Your task to perform on an android device: Open Yahoo.com Image 0: 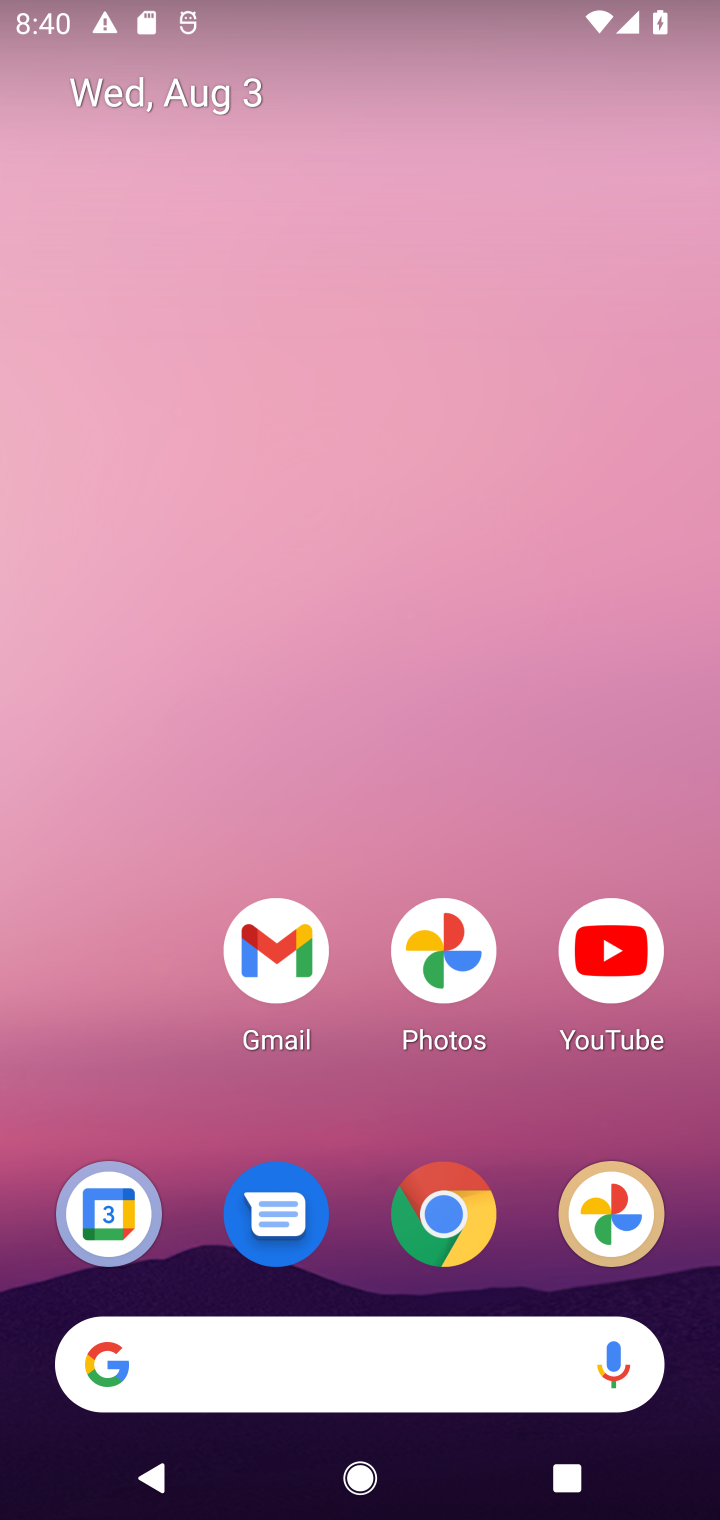
Step 0: click (459, 1198)
Your task to perform on an android device: Open Yahoo.com Image 1: 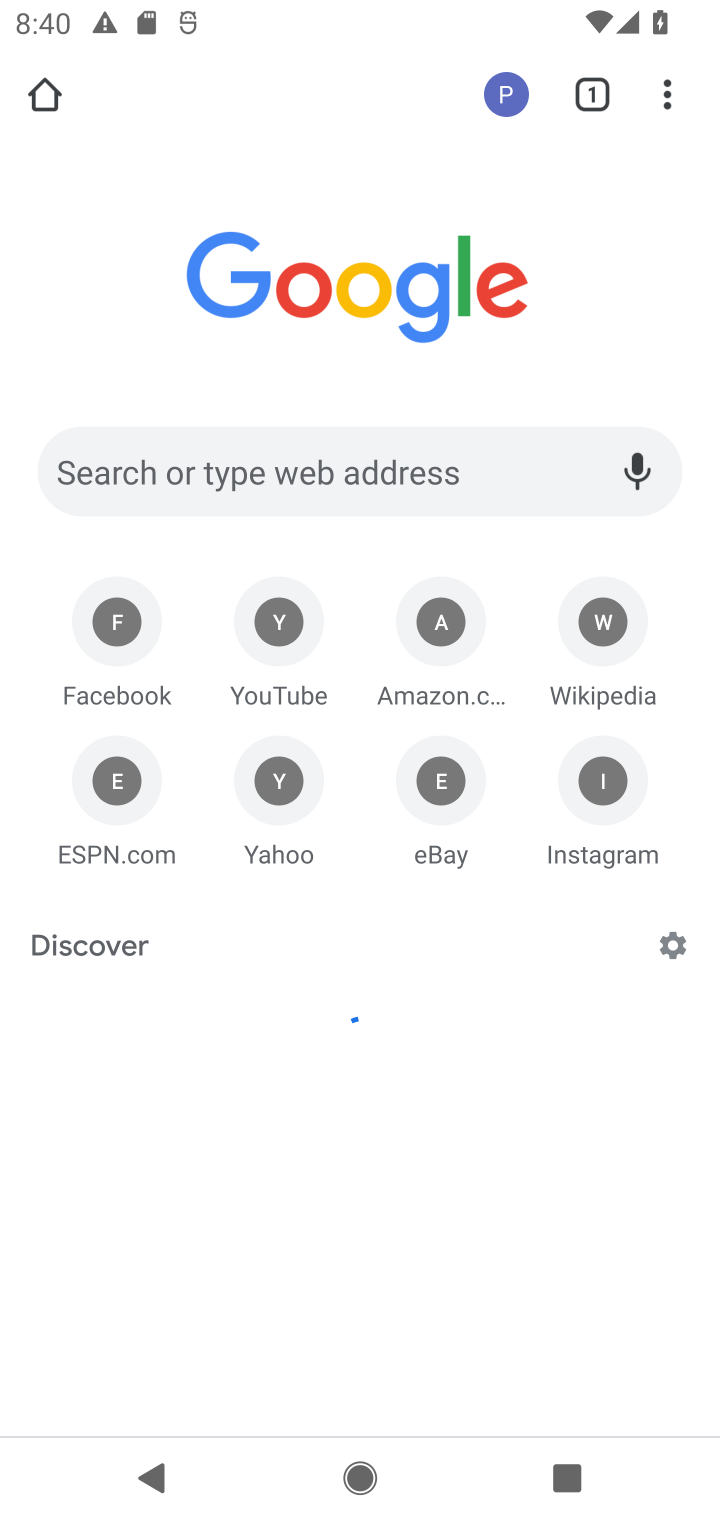
Step 1: click (418, 465)
Your task to perform on an android device: Open Yahoo.com Image 2: 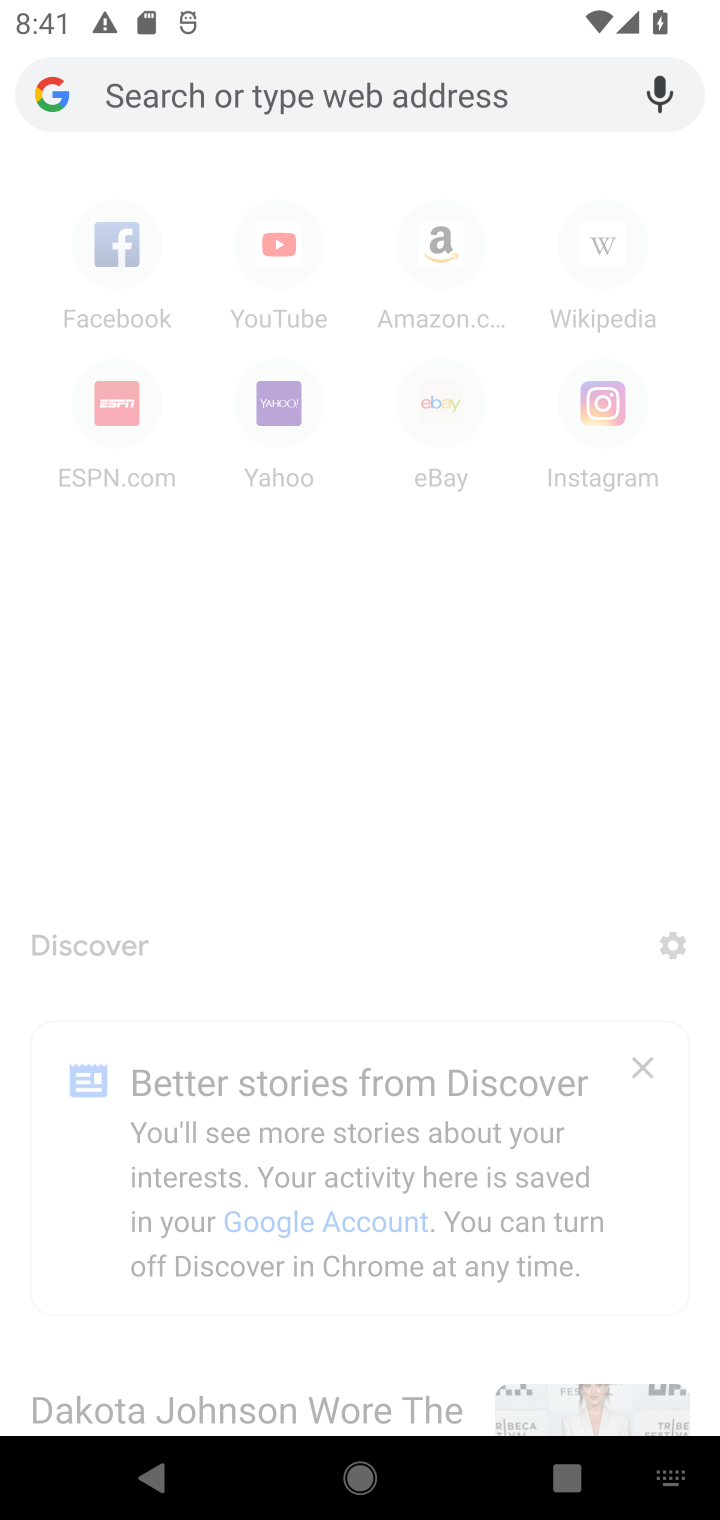
Step 2: type "yahoo.com"
Your task to perform on an android device: Open Yahoo.com Image 3: 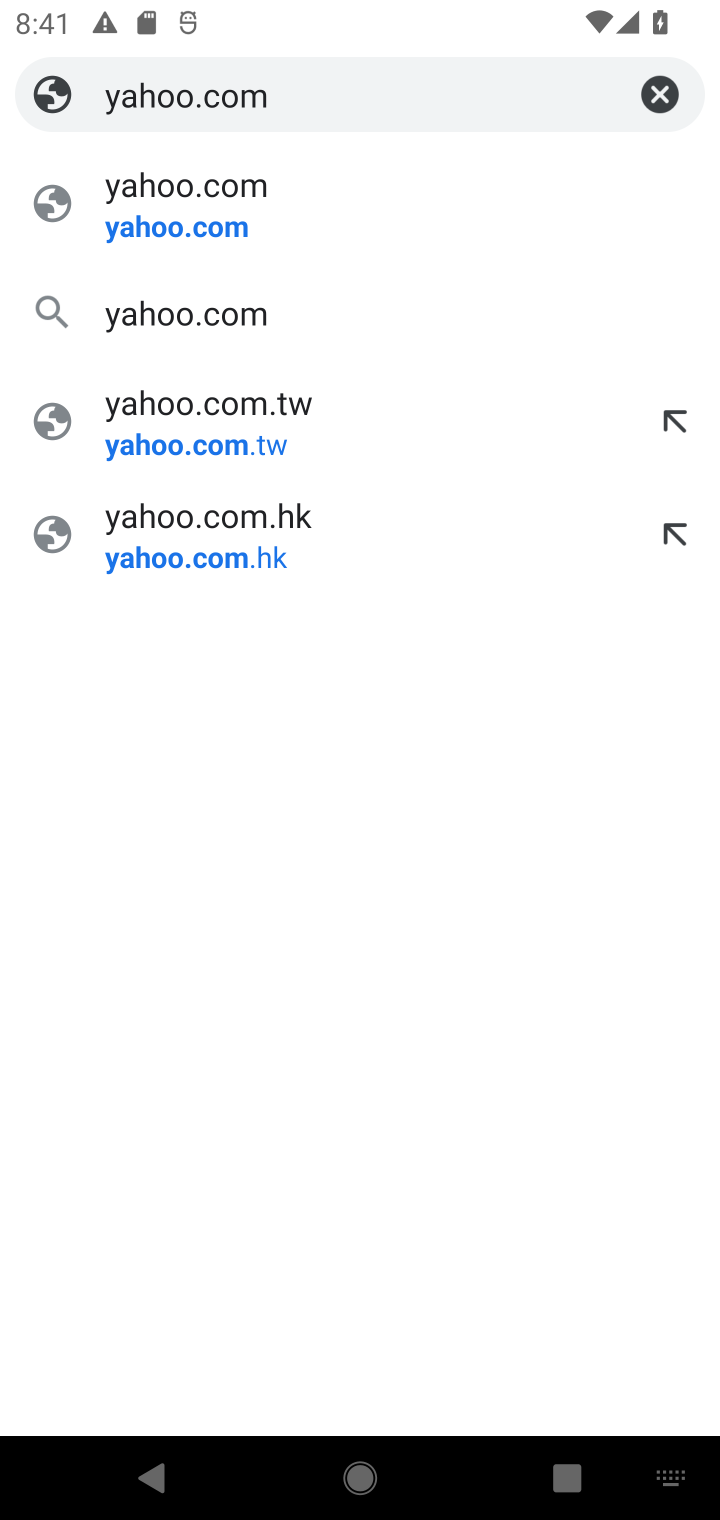
Step 3: click (262, 193)
Your task to perform on an android device: Open Yahoo.com Image 4: 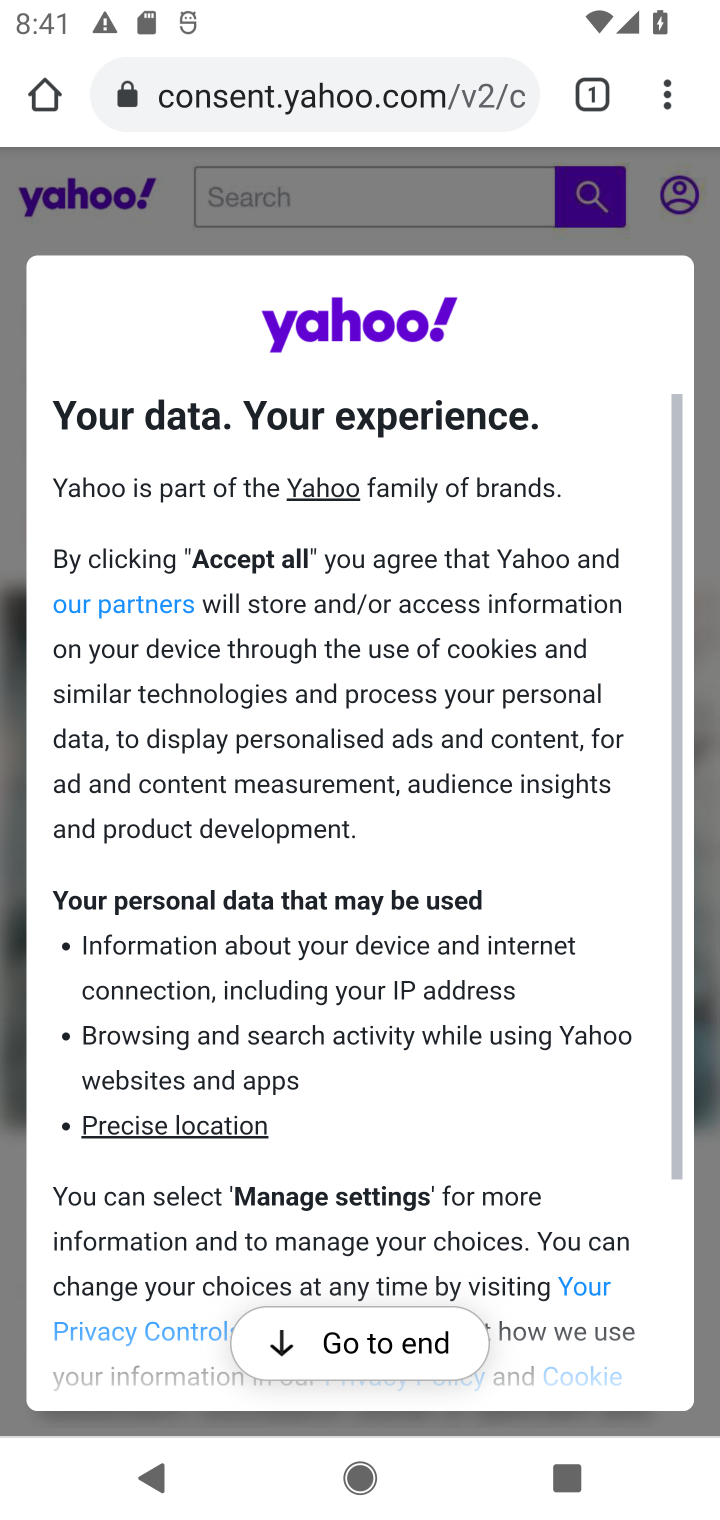
Step 4: task complete